Your task to perform on an android device: Go to Maps Image 0: 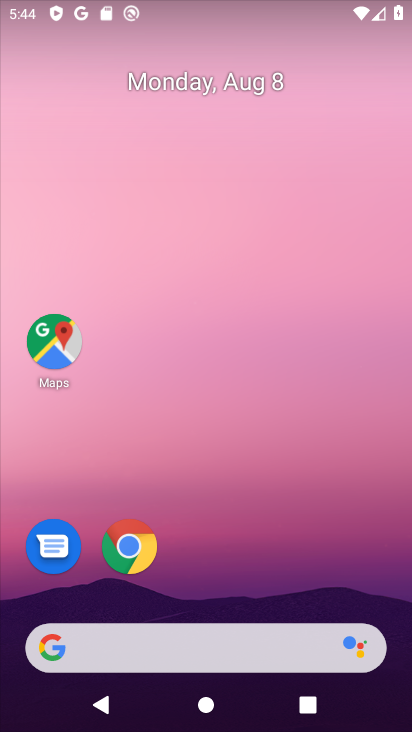
Step 0: click (56, 330)
Your task to perform on an android device: Go to Maps Image 1: 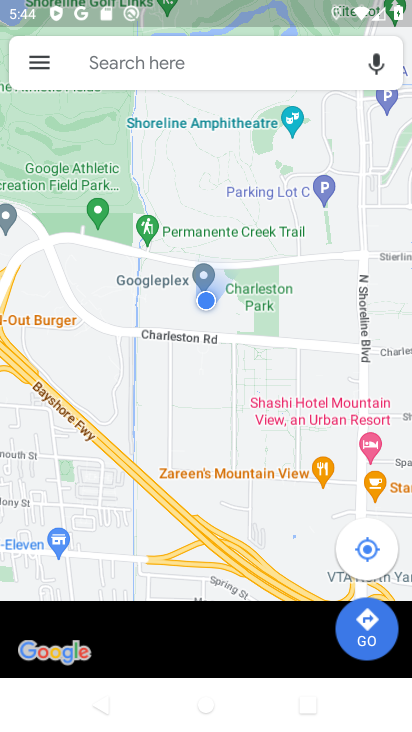
Step 1: task complete